Your task to perform on an android device: Open the phone app and click the voicemail tab. Image 0: 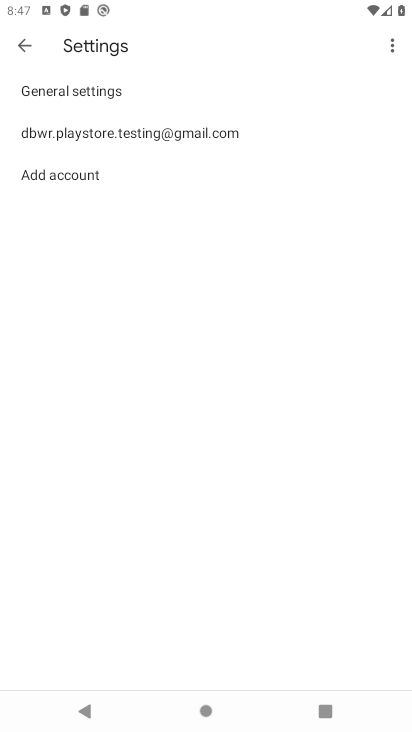
Step 0: press home button
Your task to perform on an android device: Open the phone app and click the voicemail tab. Image 1: 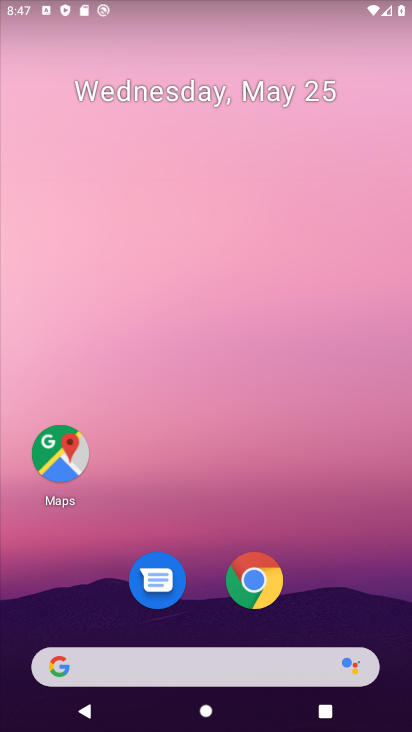
Step 1: drag from (66, 415) to (283, 83)
Your task to perform on an android device: Open the phone app and click the voicemail tab. Image 2: 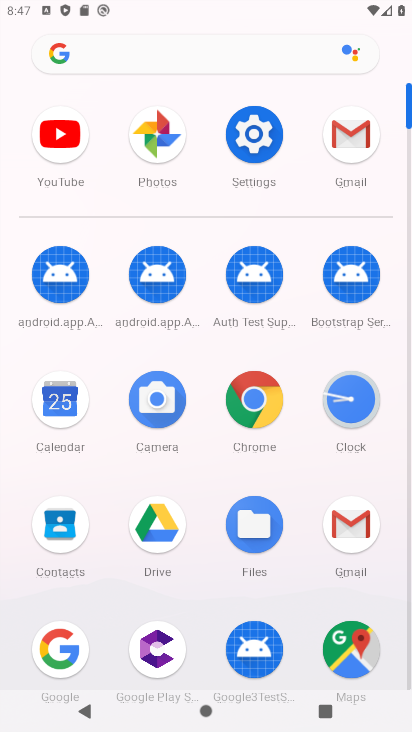
Step 2: drag from (13, 542) to (247, 158)
Your task to perform on an android device: Open the phone app and click the voicemail tab. Image 3: 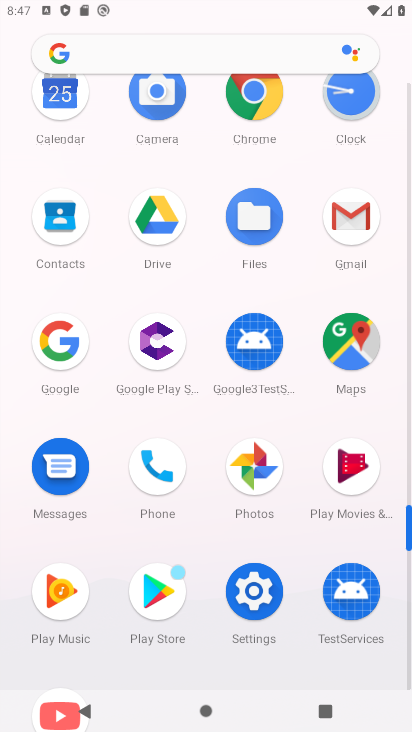
Step 3: click (152, 462)
Your task to perform on an android device: Open the phone app and click the voicemail tab. Image 4: 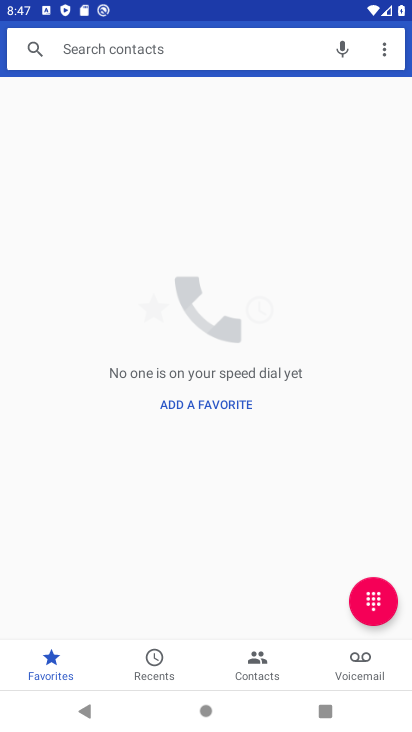
Step 4: click (356, 679)
Your task to perform on an android device: Open the phone app and click the voicemail tab. Image 5: 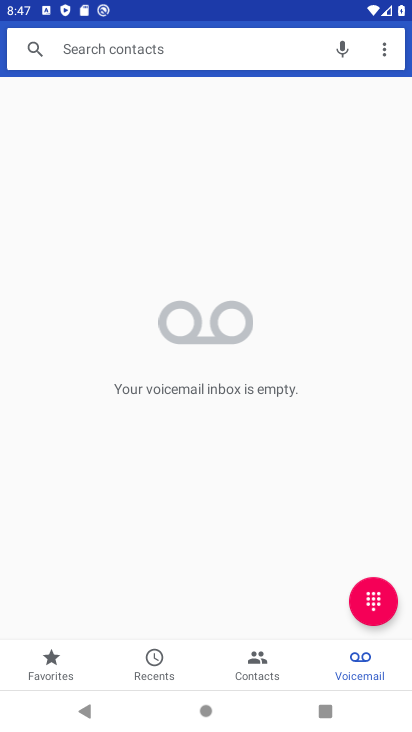
Step 5: task complete